Your task to perform on an android device: What's the weather today? Image 0: 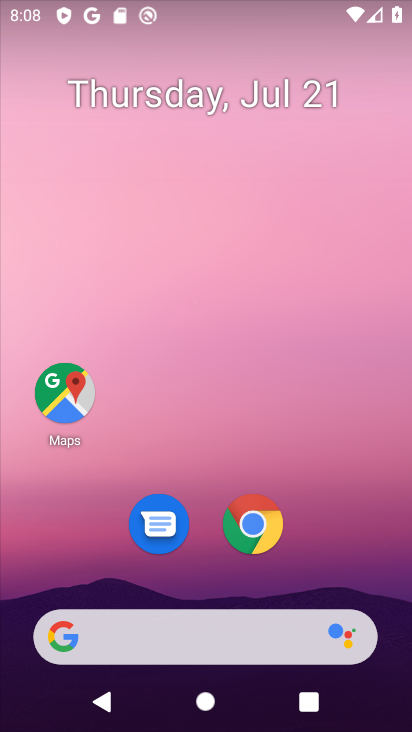
Step 0: press home button
Your task to perform on an android device: What's the weather today? Image 1: 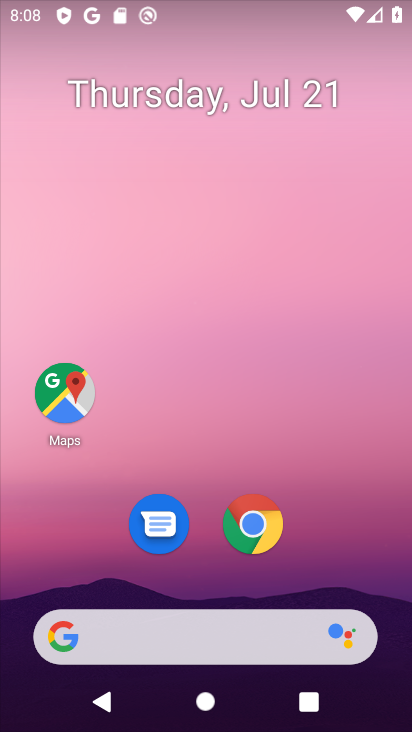
Step 1: click (150, 629)
Your task to perform on an android device: What's the weather today? Image 2: 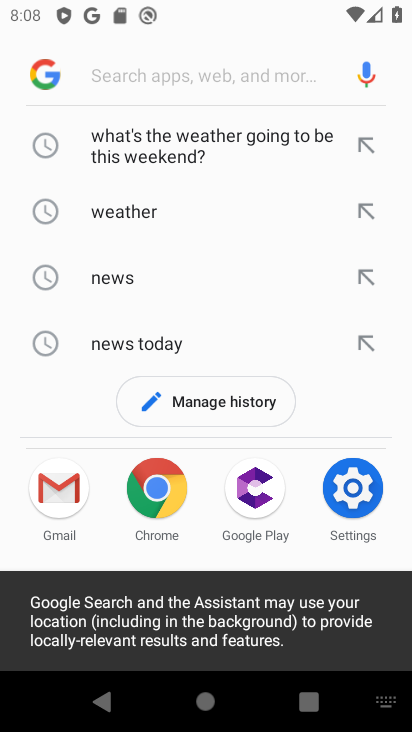
Step 2: click (147, 206)
Your task to perform on an android device: What's the weather today? Image 3: 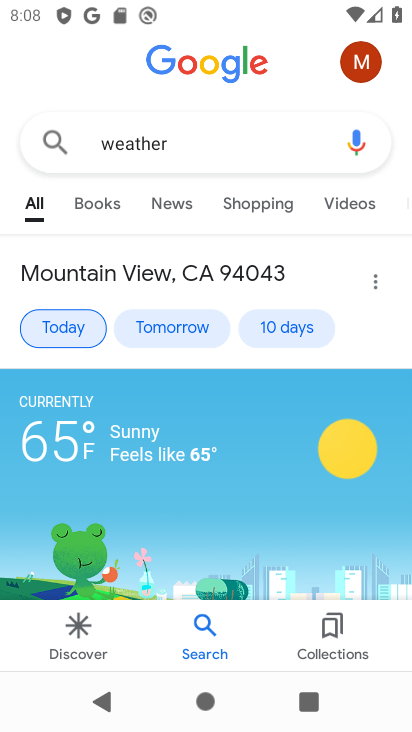
Step 3: task complete